Your task to perform on an android device: When is my next appointment? Image 0: 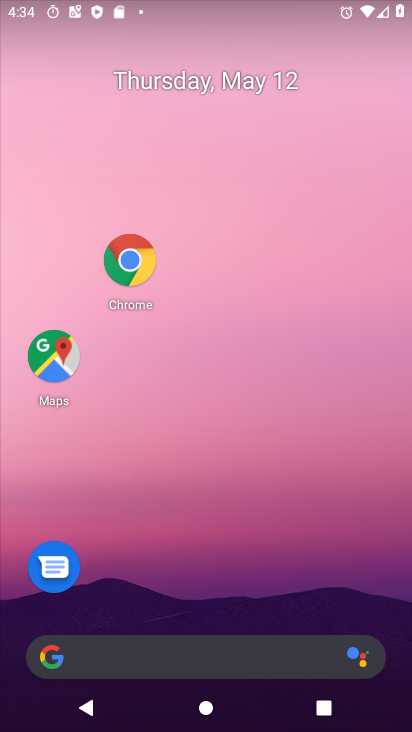
Step 0: drag from (212, 634) to (248, 235)
Your task to perform on an android device: When is my next appointment? Image 1: 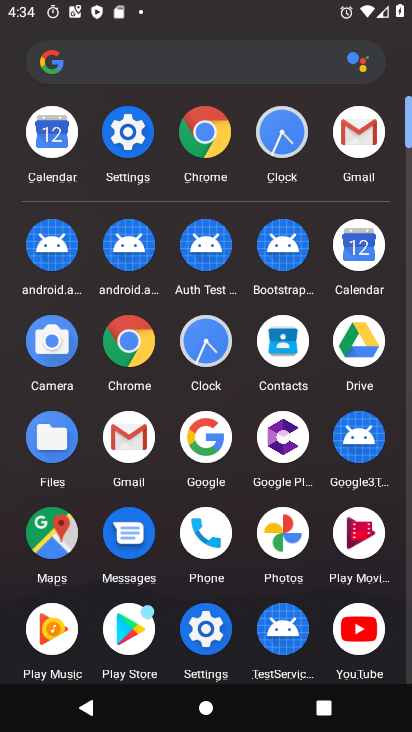
Step 1: click (364, 260)
Your task to perform on an android device: When is my next appointment? Image 2: 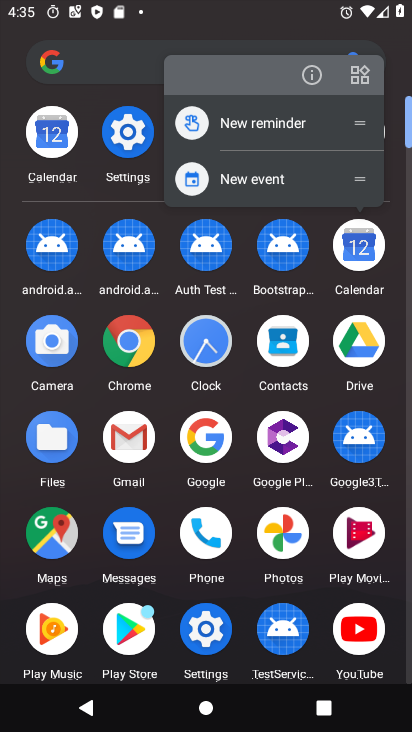
Step 2: click (362, 259)
Your task to perform on an android device: When is my next appointment? Image 3: 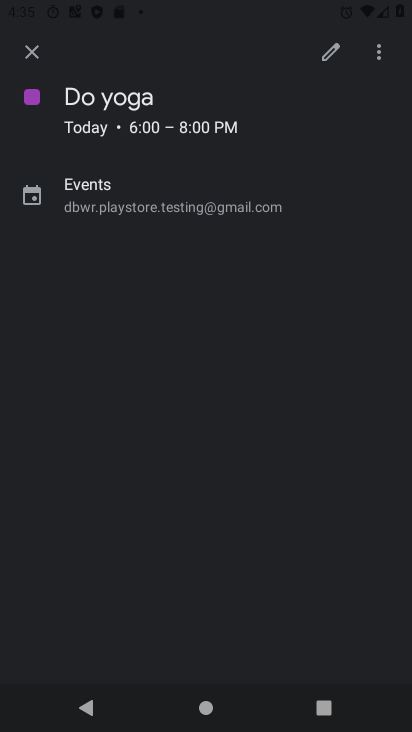
Step 3: click (52, 60)
Your task to perform on an android device: When is my next appointment? Image 4: 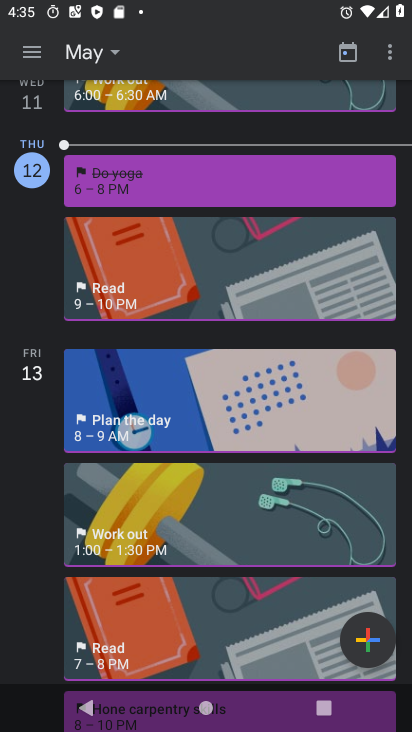
Step 4: click (136, 288)
Your task to perform on an android device: When is my next appointment? Image 5: 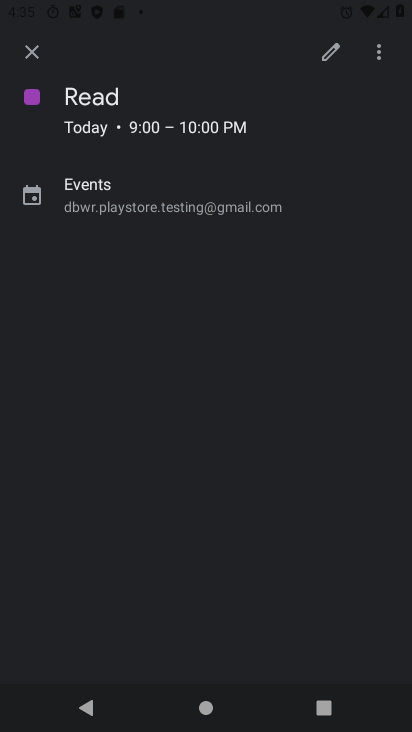
Step 5: task complete